Your task to perform on an android device: open the mobile data screen to see how much data has been used Image 0: 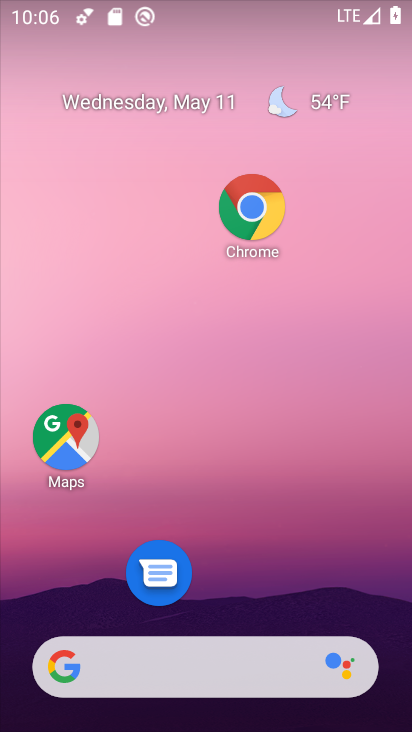
Step 0: drag from (357, 695) to (324, 49)
Your task to perform on an android device: open the mobile data screen to see how much data has been used Image 1: 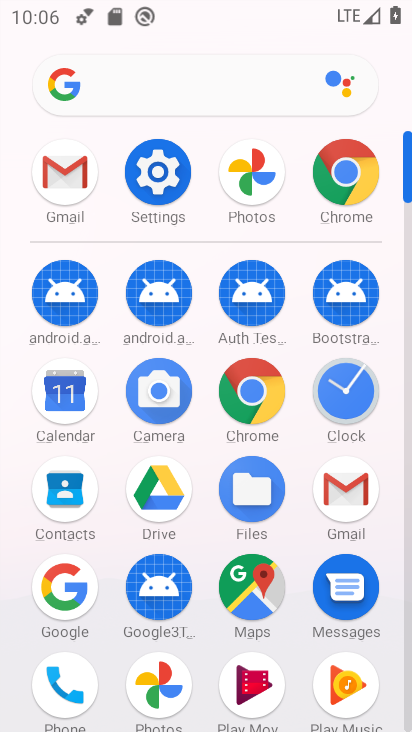
Step 1: click (157, 191)
Your task to perform on an android device: open the mobile data screen to see how much data has been used Image 2: 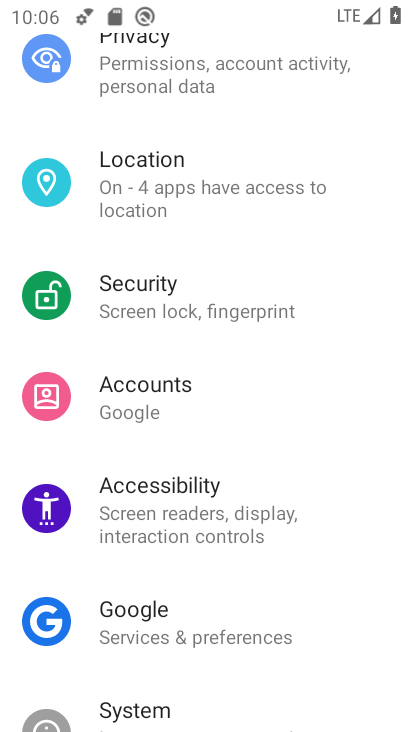
Step 2: drag from (280, 601) to (316, 711)
Your task to perform on an android device: open the mobile data screen to see how much data has been used Image 3: 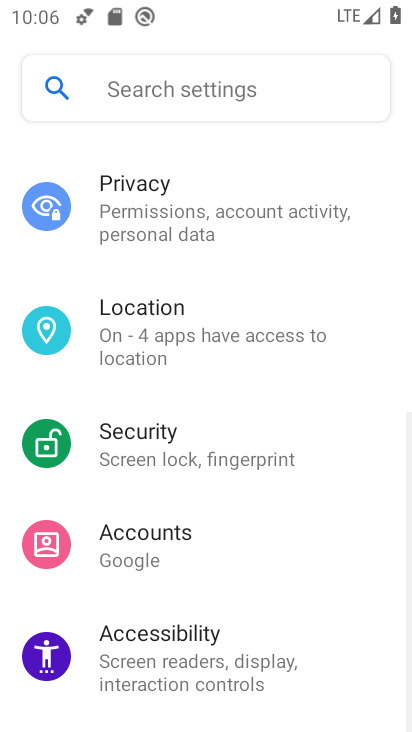
Step 3: drag from (259, 226) to (344, 710)
Your task to perform on an android device: open the mobile data screen to see how much data has been used Image 4: 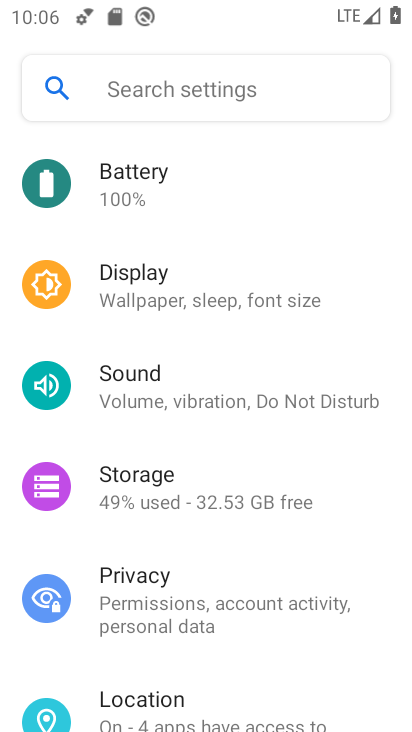
Step 4: drag from (270, 402) to (288, 730)
Your task to perform on an android device: open the mobile data screen to see how much data has been used Image 5: 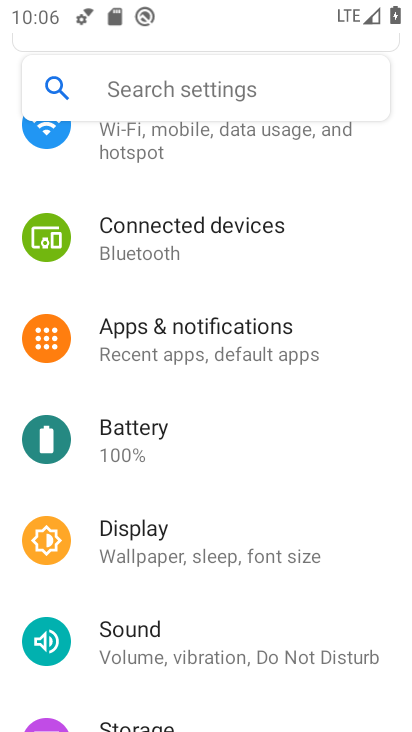
Step 5: drag from (302, 337) to (340, 718)
Your task to perform on an android device: open the mobile data screen to see how much data has been used Image 6: 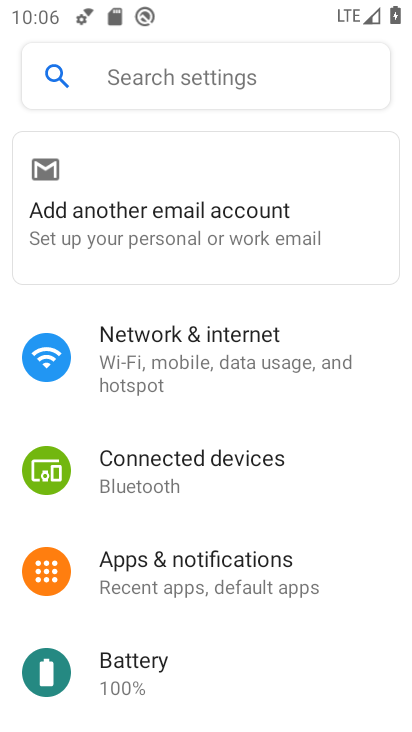
Step 6: drag from (151, 300) to (195, 508)
Your task to perform on an android device: open the mobile data screen to see how much data has been used Image 7: 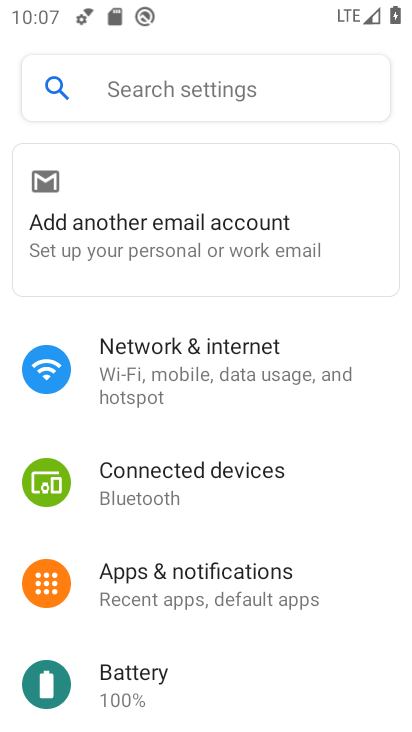
Step 7: click (292, 362)
Your task to perform on an android device: open the mobile data screen to see how much data has been used Image 8: 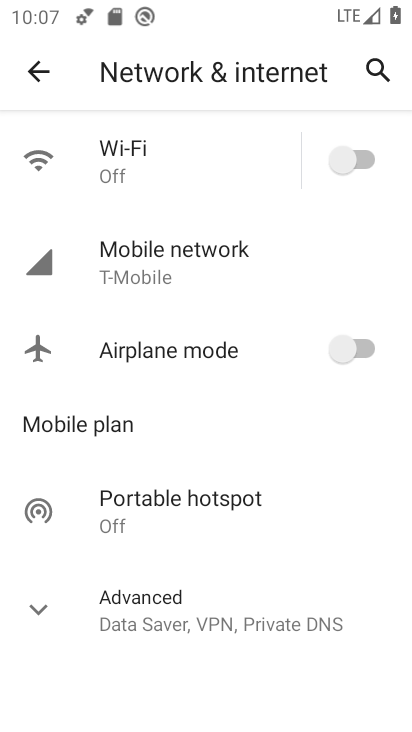
Step 8: click (263, 282)
Your task to perform on an android device: open the mobile data screen to see how much data has been used Image 9: 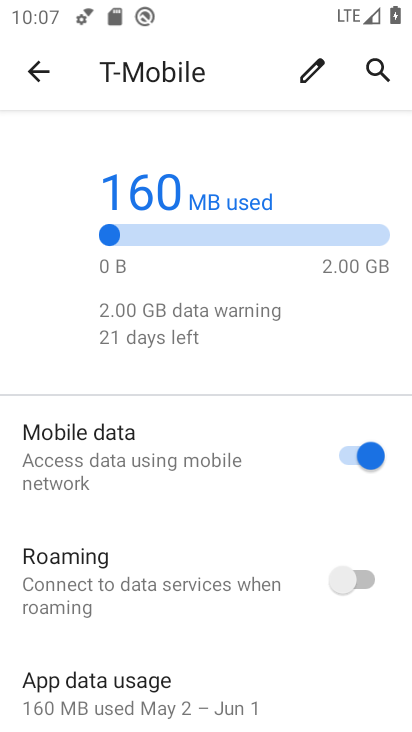
Step 9: task complete